Your task to perform on an android device: turn off wifi Image 0: 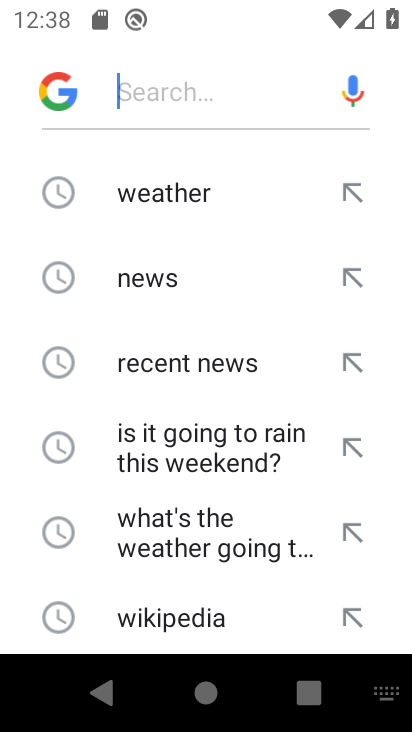
Step 0: press home button
Your task to perform on an android device: turn off wifi Image 1: 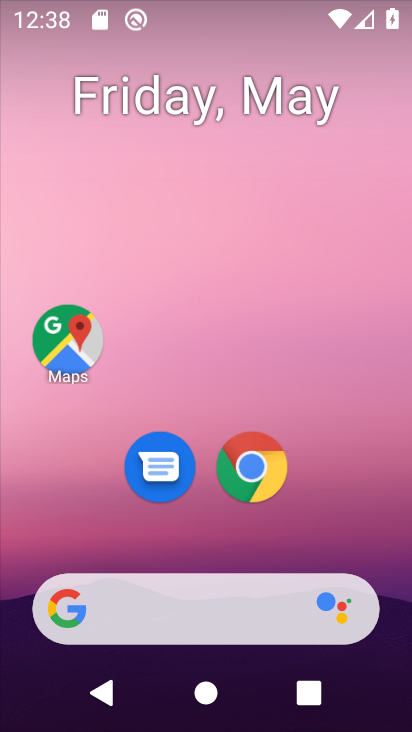
Step 1: drag from (345, 490) to (363, 41)
Your task to perform on an android device: turn off wifi Image 2: 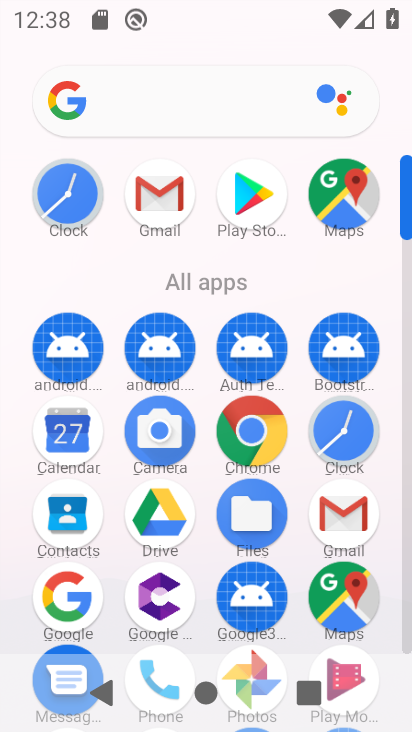
Step 2: drag from (385, 603) to (358, 213)
Your task to perform on an android device: turn off wifi Image 3: 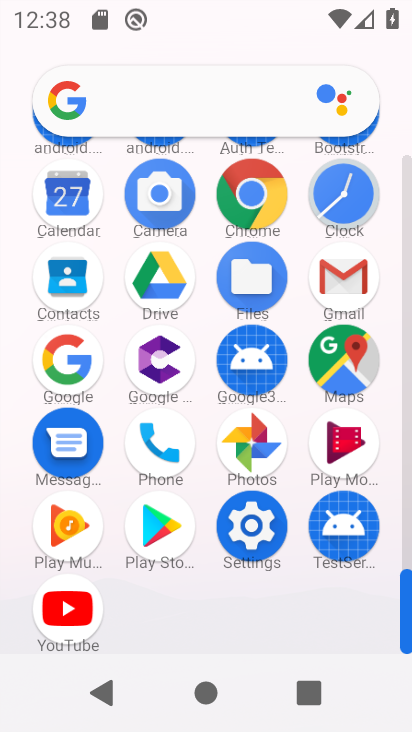
Step 3: click (264, 534)
Your task to perform on an android device: turn off wifi Image 4: 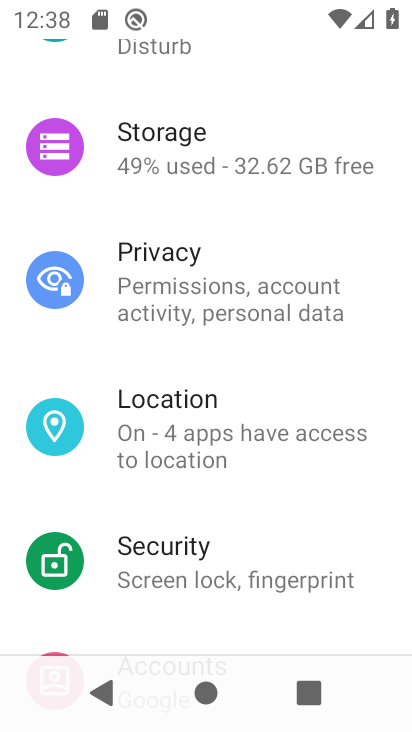
Step 4: drag from (162, 115) to (220, 648)
Your task to perform on an android device: turn off wifi Image 5: 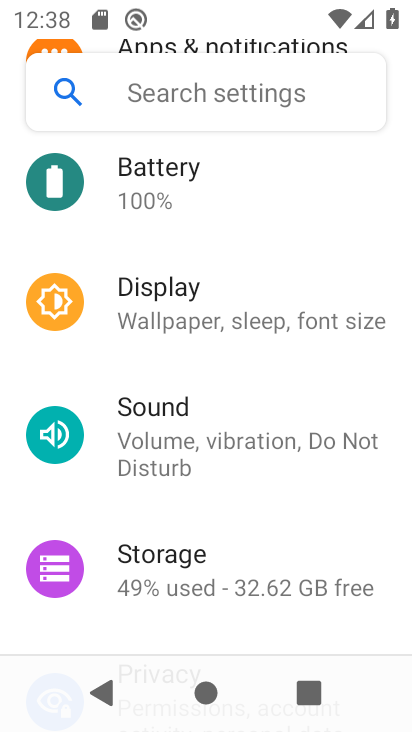
Step 5: drag from (211, 182) to (261, 574)
Your task to perform on an android device: turn off wifi Image 6: 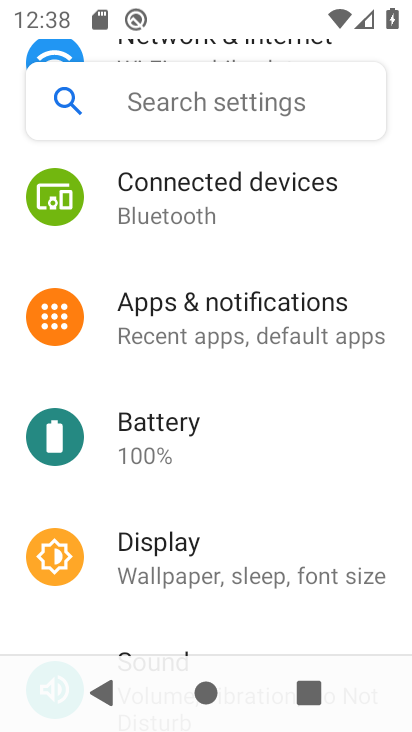
Step 6: drag from (240, 178) to (270, 567)
Your task to perform on an android device: turn off wifi Image 7: 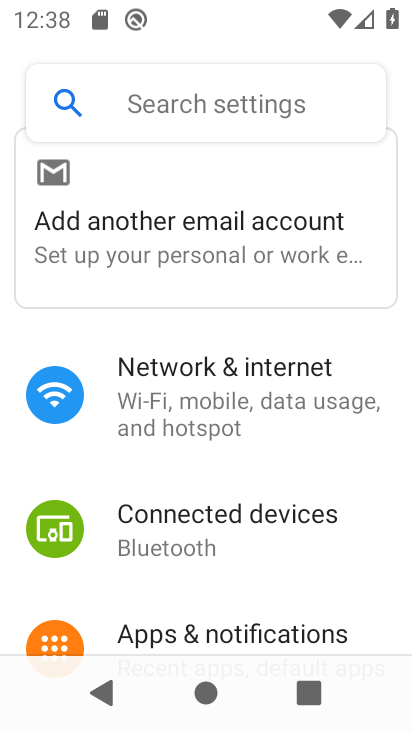
Step 7: drag from (209, 189) to (231, 448)
Your task to perform on an android device: turn off wifi Image 8: 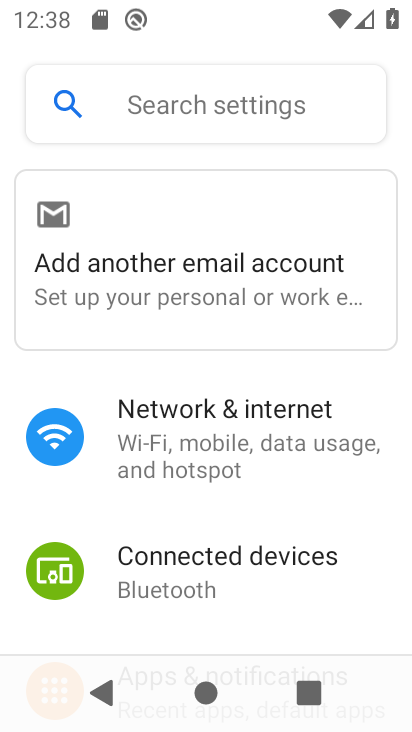
Step 8: click (158, 436)
Your task to perform on an android device: turn off wifi Image 9: 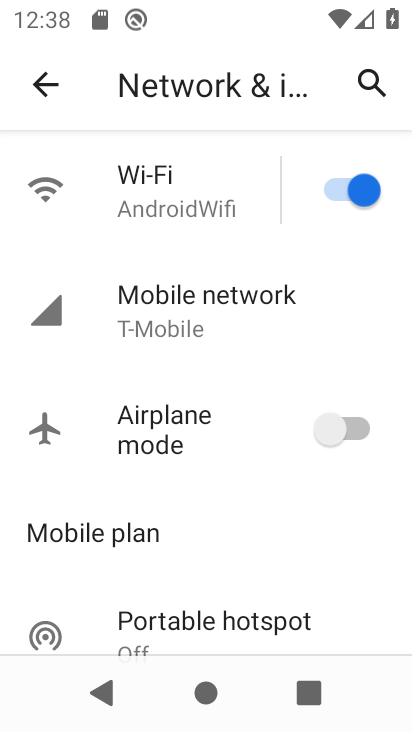
Step 9: click (349, 184)
Your task to perform on an android device: turn off wifi Image 10: 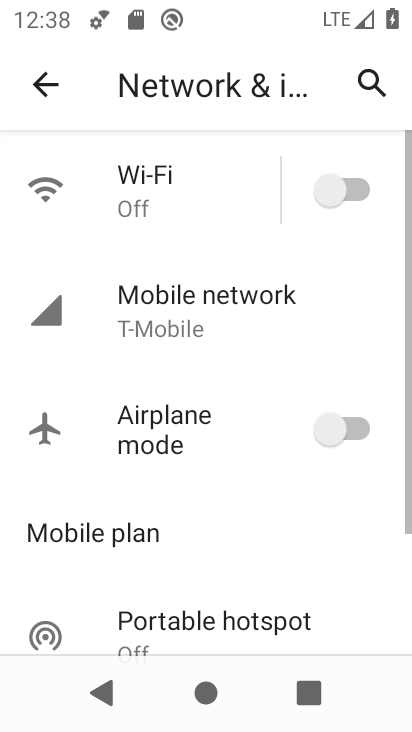
Step 10: task complete